Your task to perform on an android device: turn off picture-in-picture Image 0: 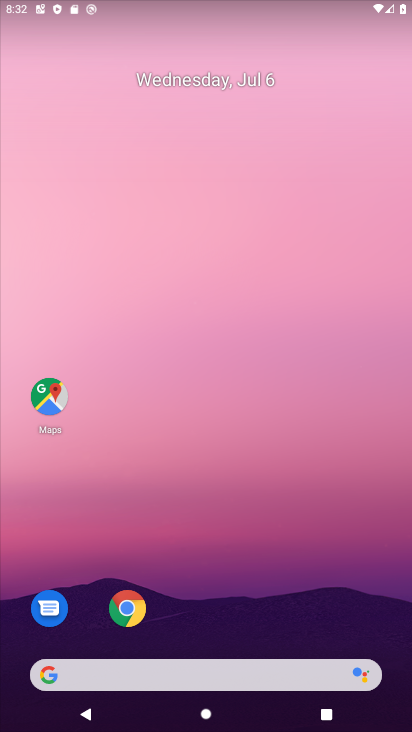
Step 0: click (133, 612)
Your task to perform on an android device: turn off picture-in-picture Image 1: 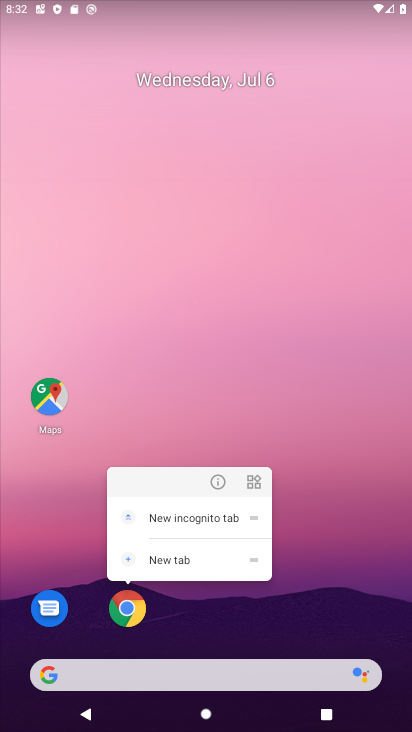
Step 1: click (224, 475)
Your task to perform on an android device: turn off picture-in-picture Image 2: 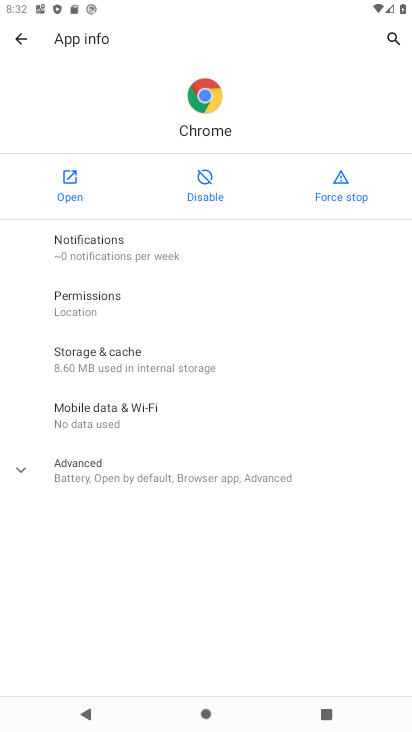
Step 2: click (121, 471)
Your task to perform on an android device: turn off picture-in-picture Image 3: 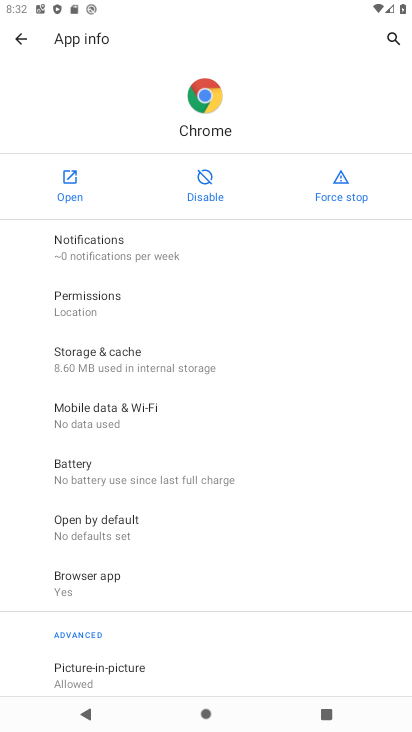
Step 3: click (126, 675)
Your task to perform on an android device: turn off picture-in-picture Image 4: 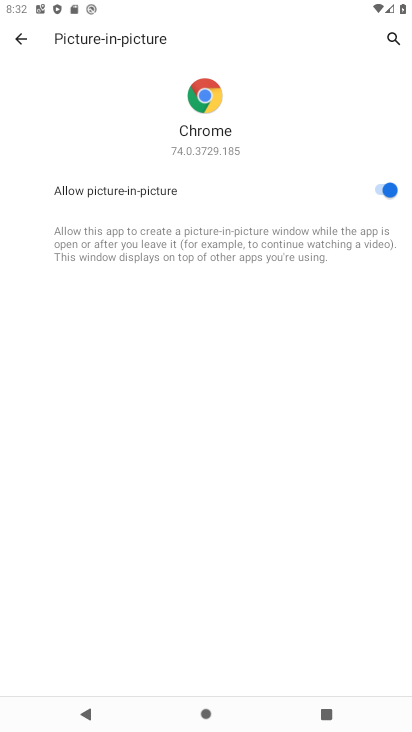
Step 4: click (377, 183)
Your task to perform on an android device: turn off picture-in-picture Image 5: 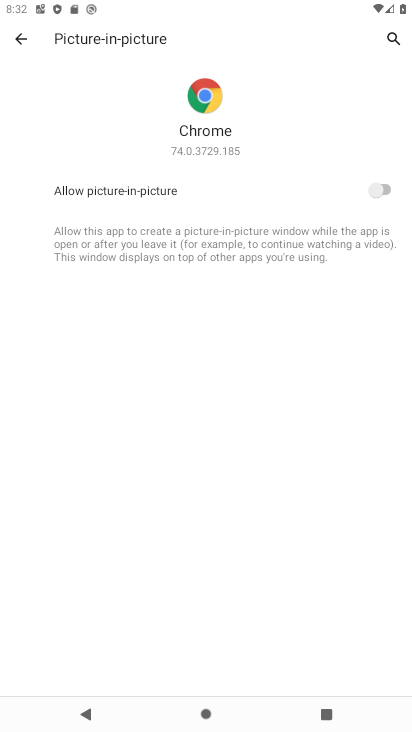
Step 5: task complete